Your task to perform on an android device: When is my next meeting? Image 0: 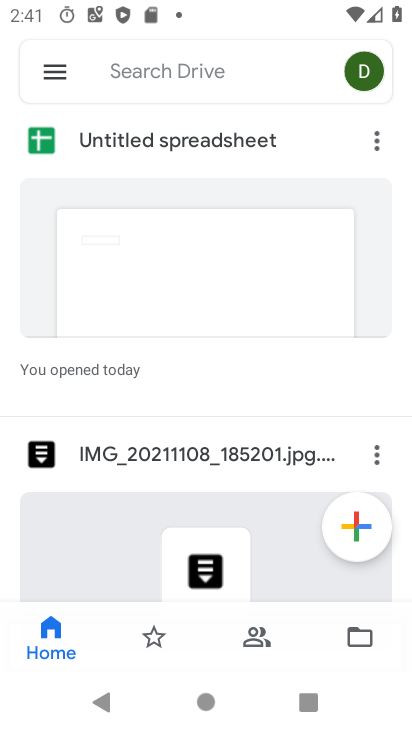
Step 0: press home button
Your task to perform on an android device: When is my next meeting? Image 1: 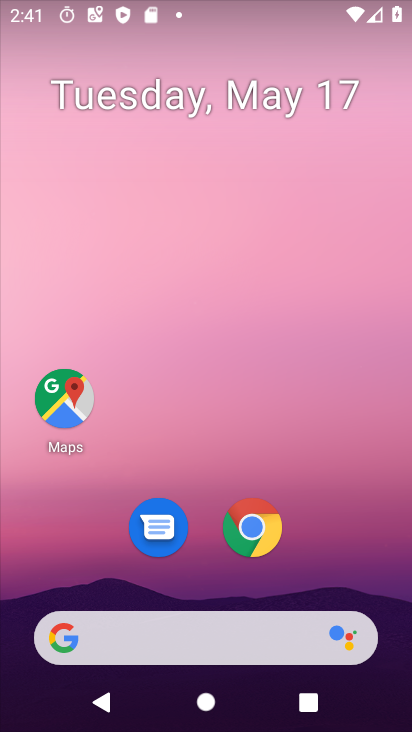
Step 1: drag from (272, 664) to (197, 284)
Your task to perform on an android device: When is my next meeting? Image 2: 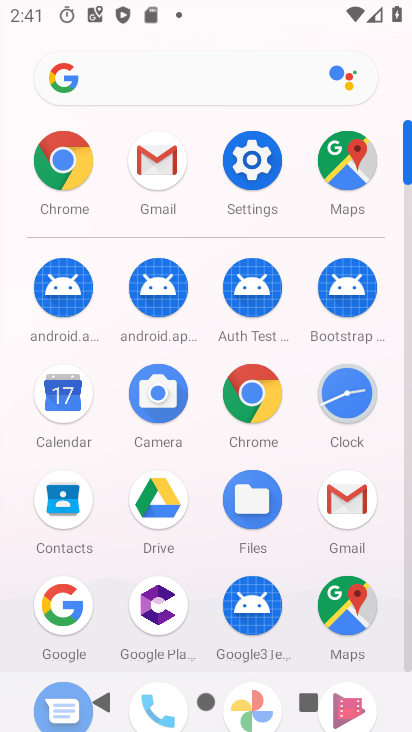
Step 2: click (61, 386)
Your task to perform on an android device: When is my next meeting? Image 3: 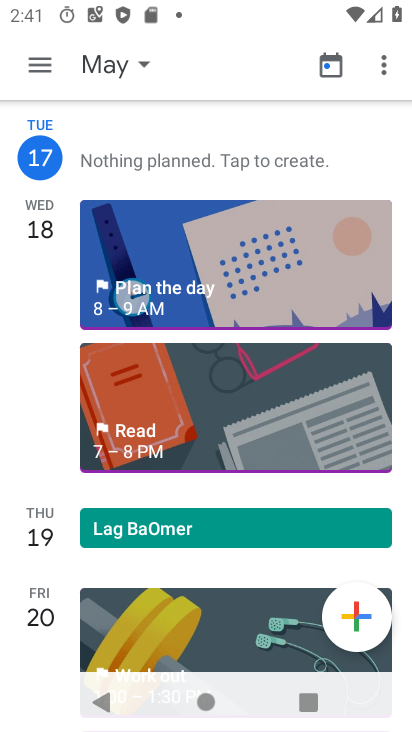
Step 3: task complete